Your task to perform on an android device: Open Wikipedia Image 0: 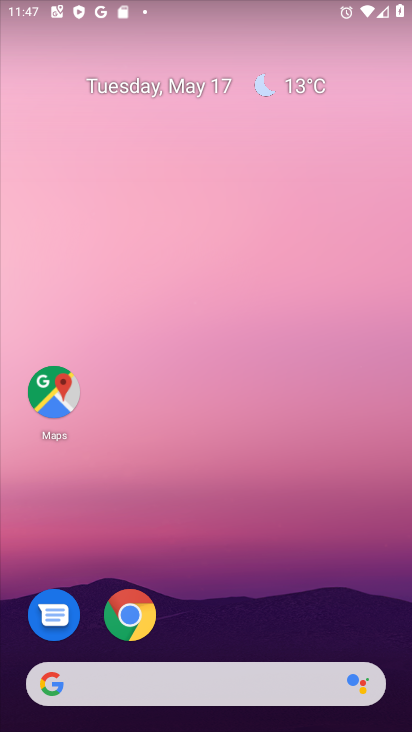
Step 0: click (94, 613)
Your task to perform on an android device: Open Wikipedia Image 1: 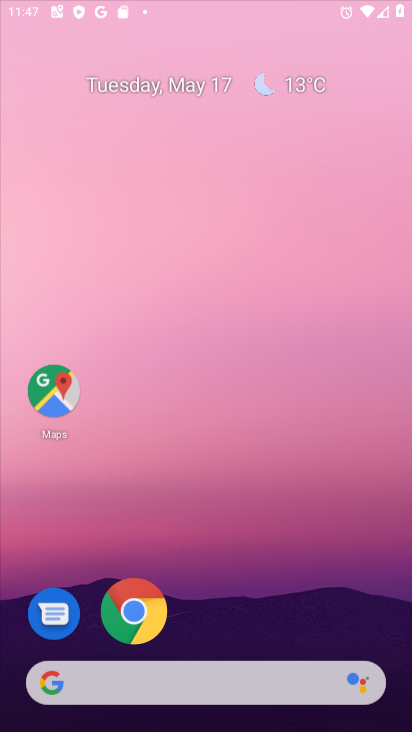
Step 1: click (110, 608)
Your task to perform on an android device: Open Wikipedia Image 2: 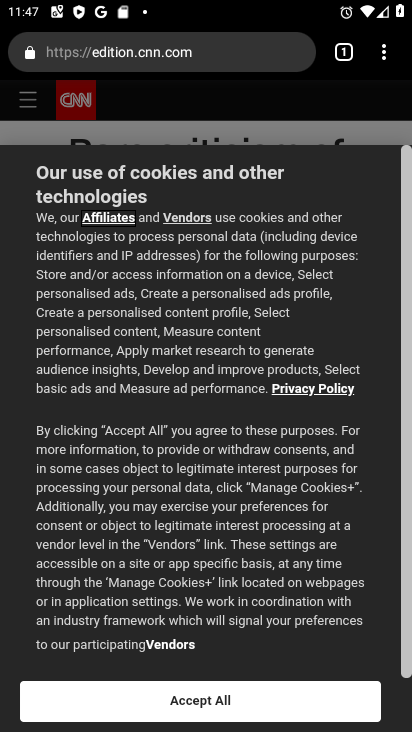
Step 2: click (175, 47)
Your task to perform on an android device: Open Wikipedia Image 3: 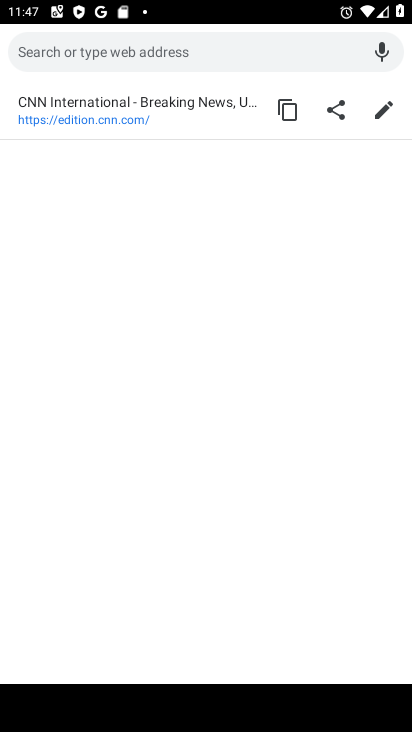
Step 3: type "wikipedia"
Your task to perform on an android device: Open Wikipedia Image 4: 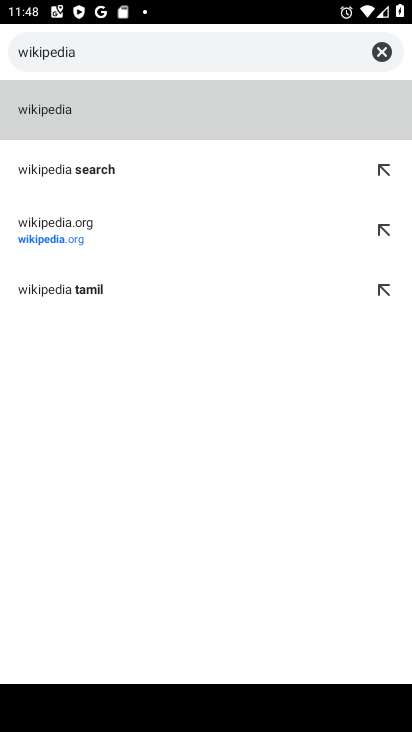
Step 4: click (41, 238)
Your task to perform on an android device: Open Wikipedia Image 5: 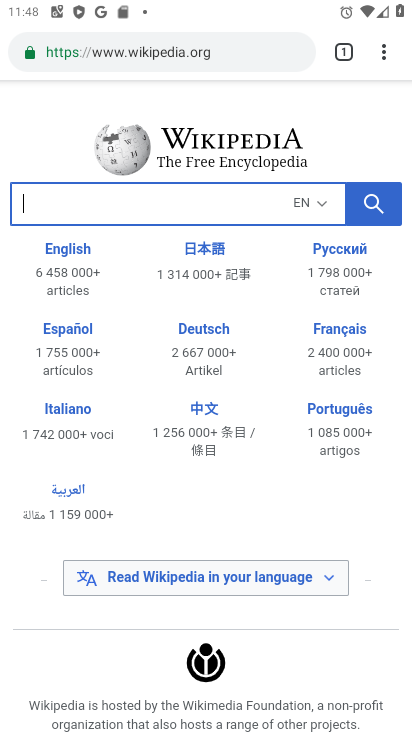
Step 5: task complete